Your task to perform on an android device: find photos in the google photos app Image 0: 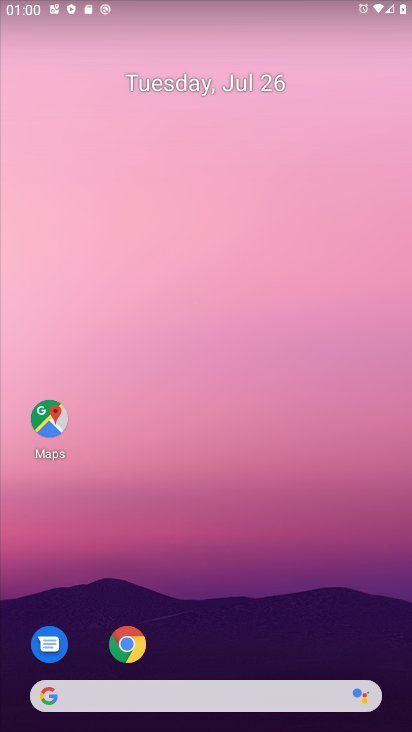
Step 0: drag from (229, 644) to (248, 354)
Your task to perform on an android device: find photos in the google photos app Image 1: 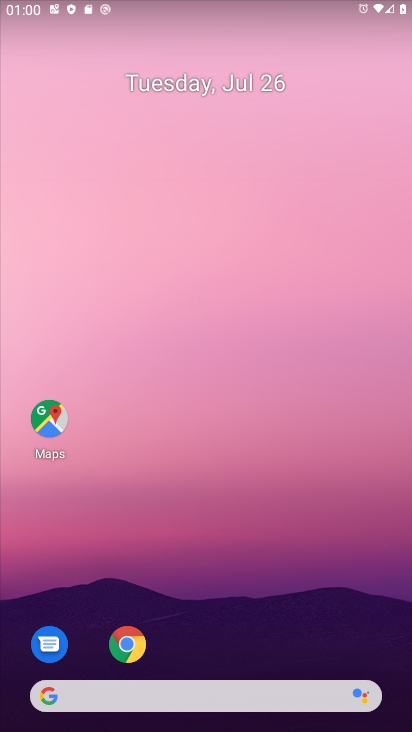
Step 1: drag from (258, 628) to (167, 120)
Your task to perform on an android device: find photos in the google photos app Image 2: 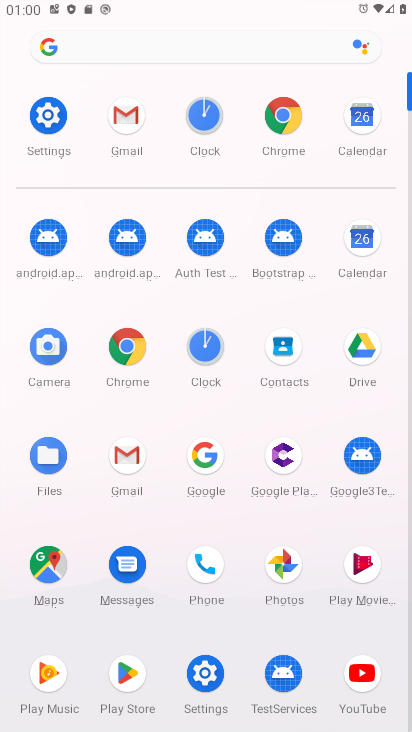
Step 2: click (275, 558)
Your task to perform on an android device: find photos in the google photos app Image 3: 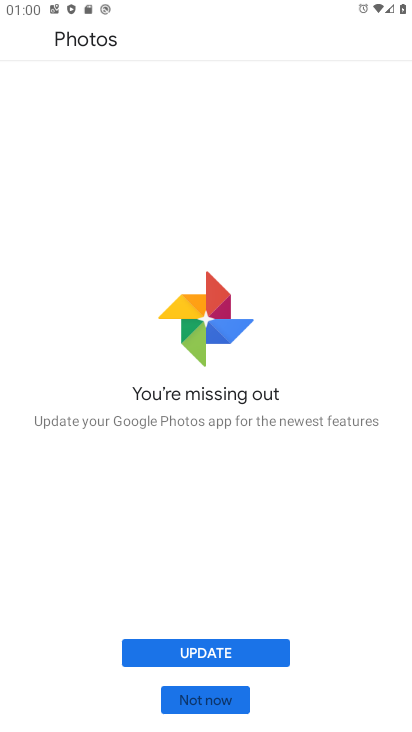
Step 3: click (203, 700)
Your task to perform on an android device: find photos in the google photos app Image 4: 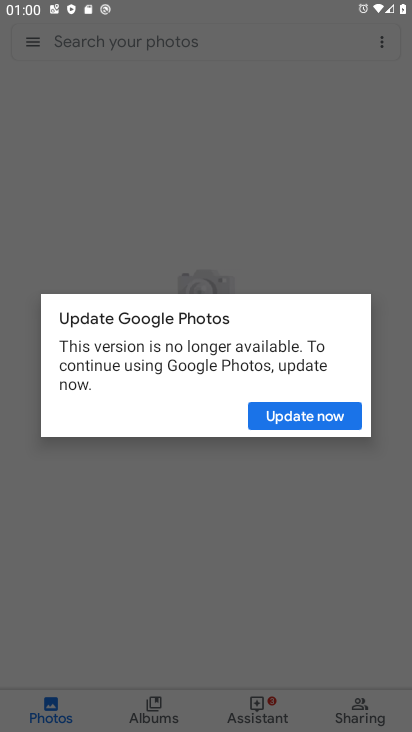
Step 4: click (315, 405)
Your task to perform on an android device: find photos in the google photos app Image 5: 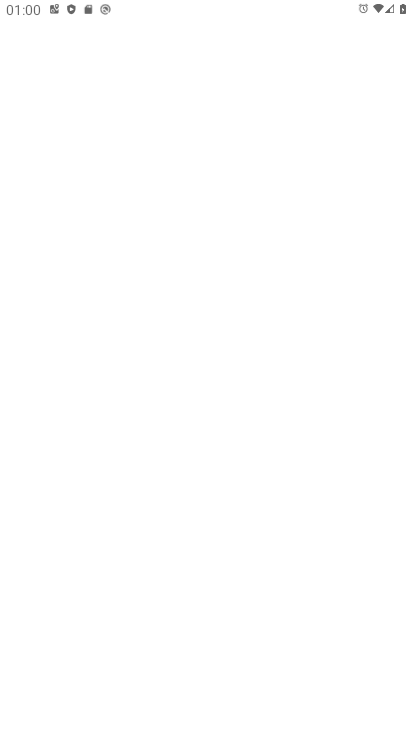
Step 5: press back button
Your task to perform on an android device: find photos in the google photos app Image 6: 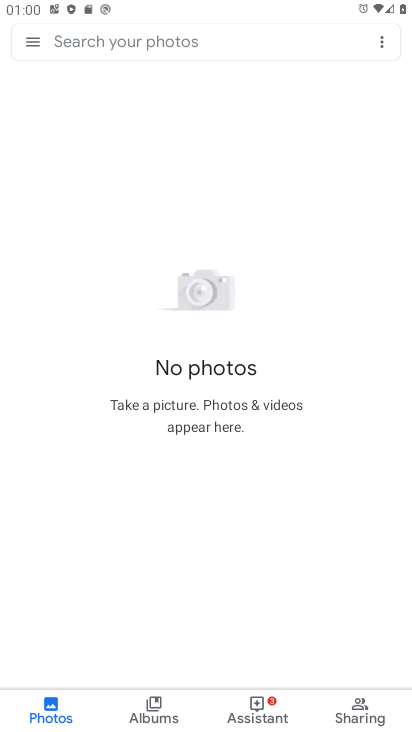
Step 6: click (150, 704)
Your task to perform on an android device: find photos in the google photos app Image 7: 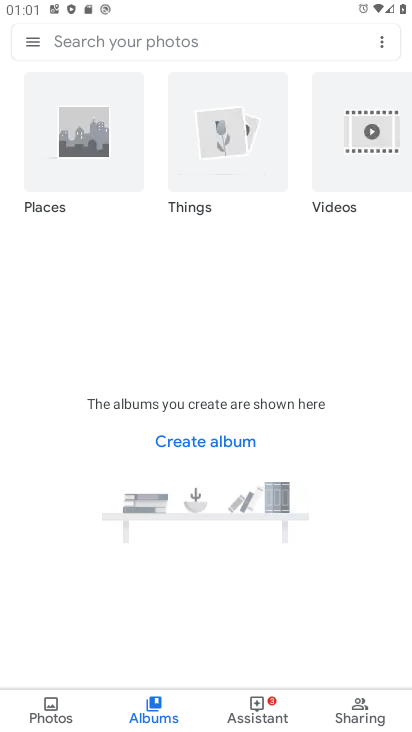
Step 7: task complete